Your task to perform on an android device: Open Google Maps Image 0: 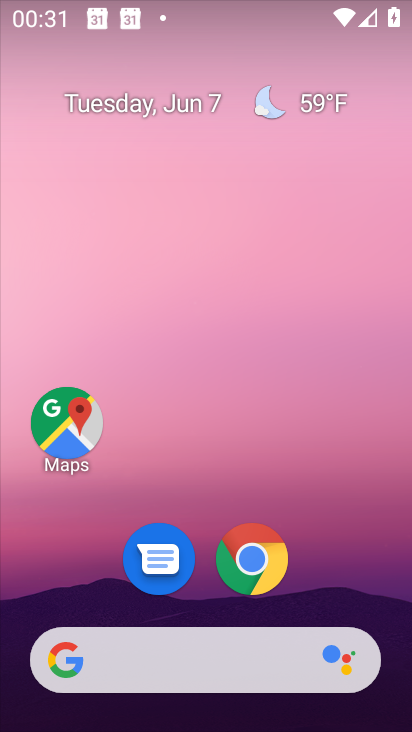
Step 0: click (68, 408)
Your task to perform on an android device: Open Google Maps Image 1: 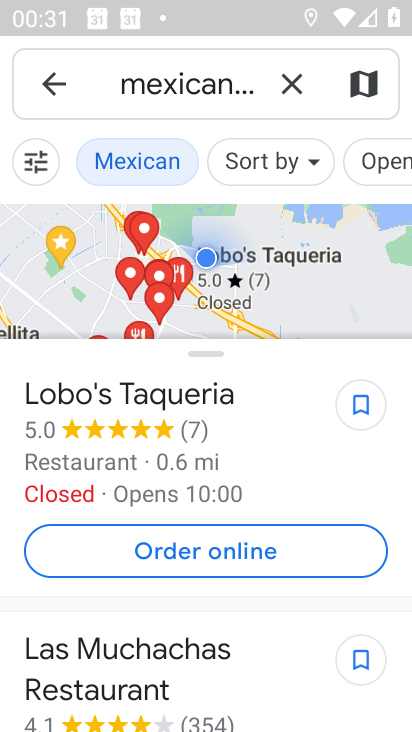
Step 1: task complete